Your task to perform on an android device: Look up the best rated video games on bestbuy.com Image 0: 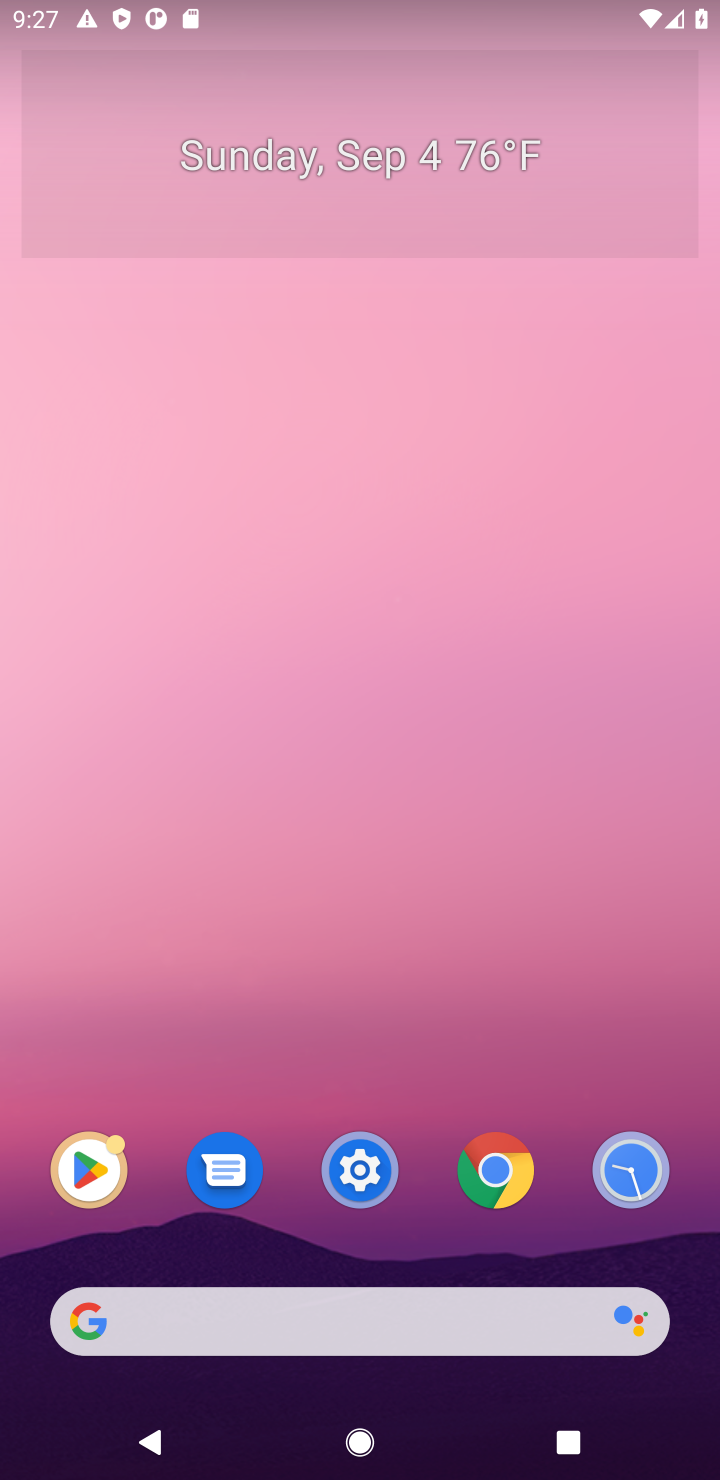
Step 0: click (482, 1327)
Your task to perform on an android device: Look up the best rated video games on bestbuy.com Image 1: 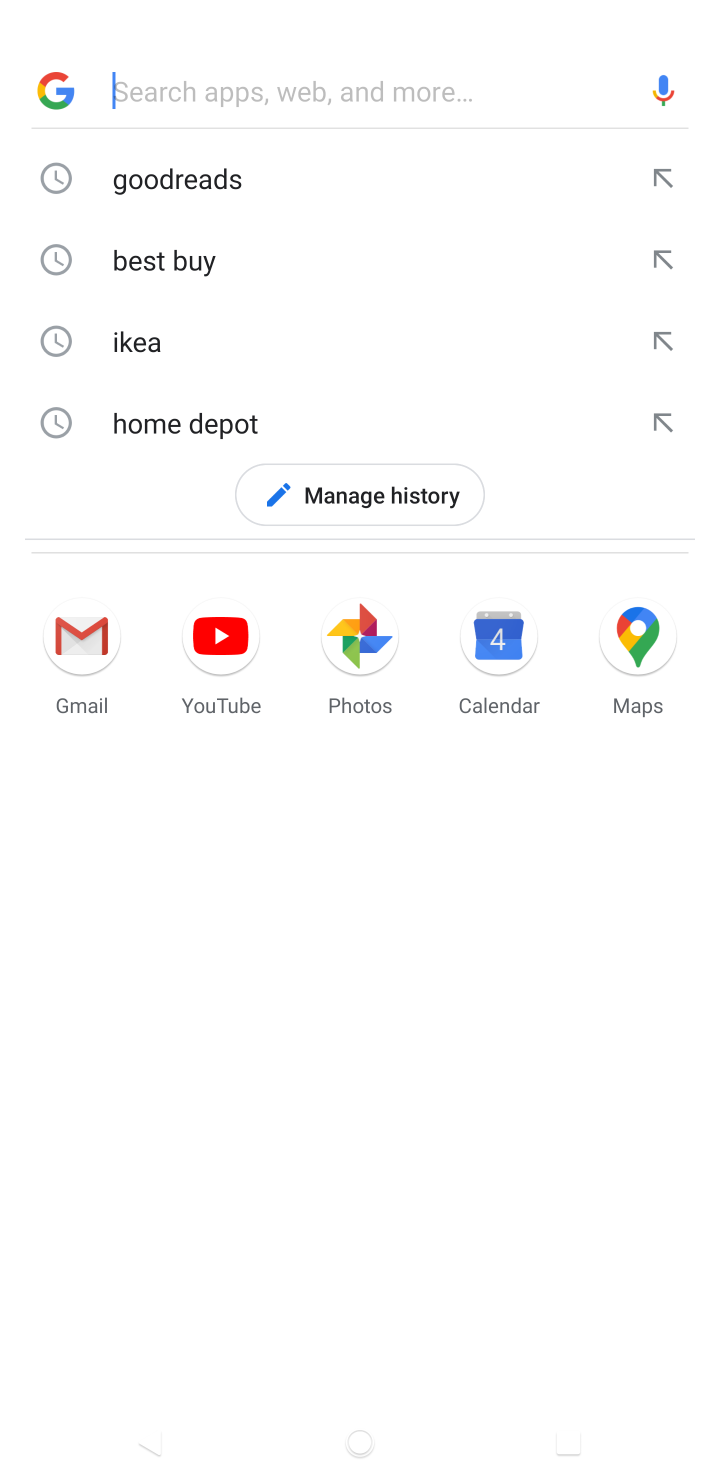
Step 1: click (357, 1314)
Your task to perform on an android device: Look up the best rated video games on bestbuy.com Image 2: 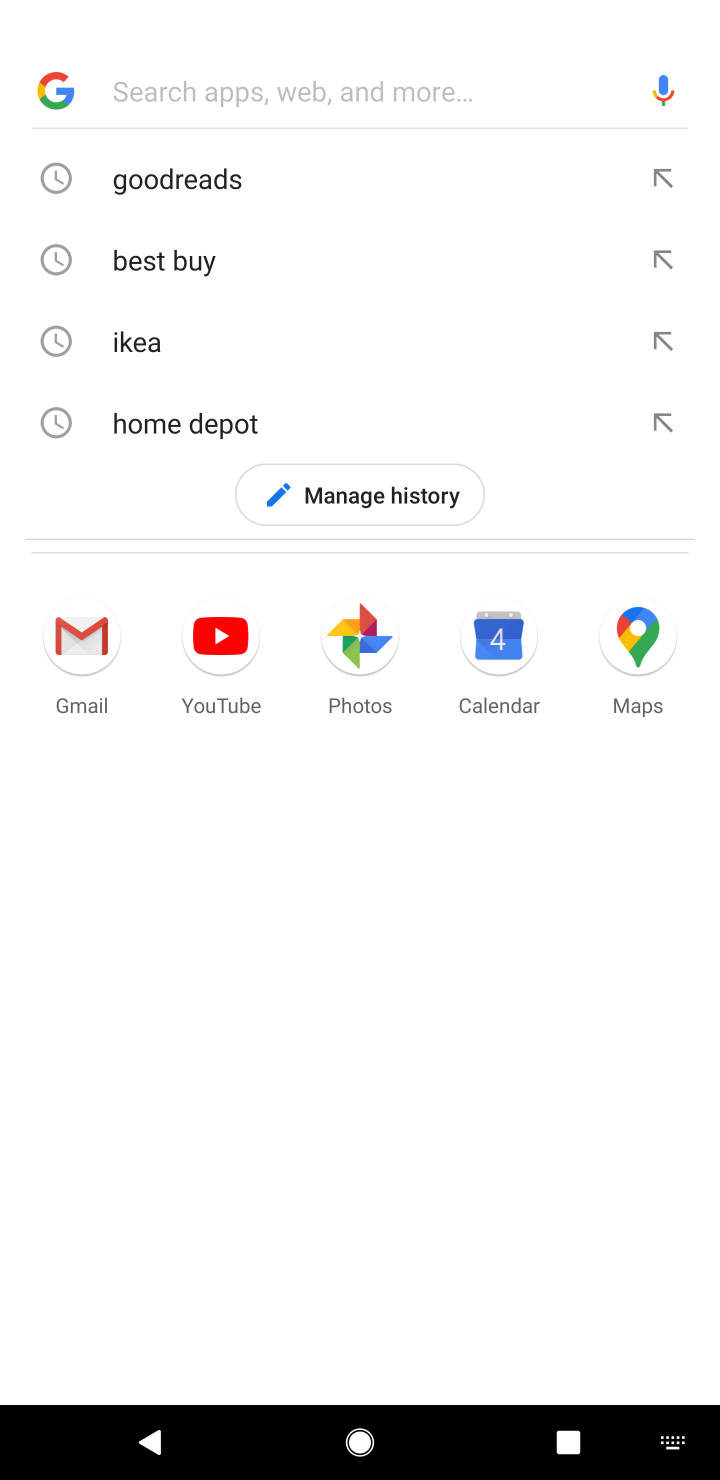
Step 2: type "bestbuy.com"
Your task to perform on an android device: Look up the best rated video games on bestbuy.com Image 3: 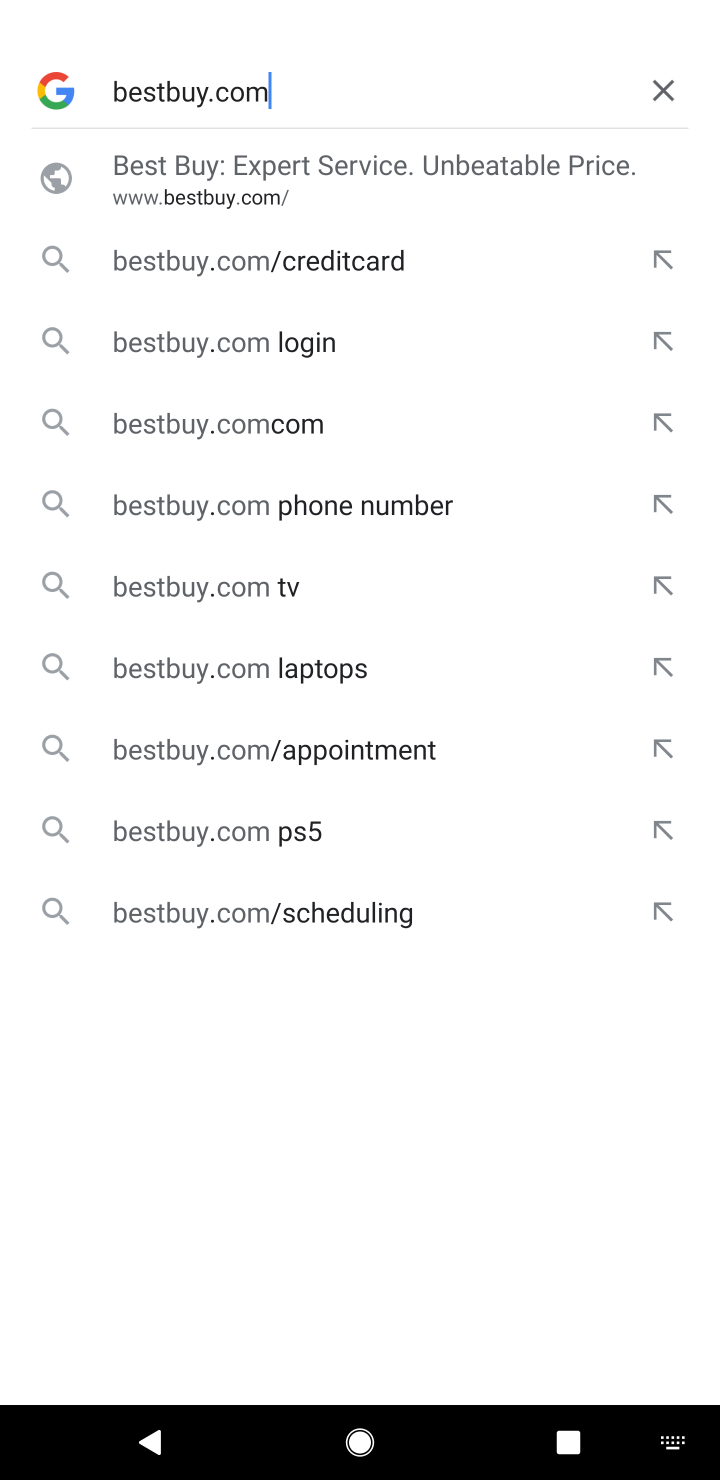
Step 3: click (262, 199)
Your task to perform on an android device: Look up the best rated video games on bestbuy.com Image 4: 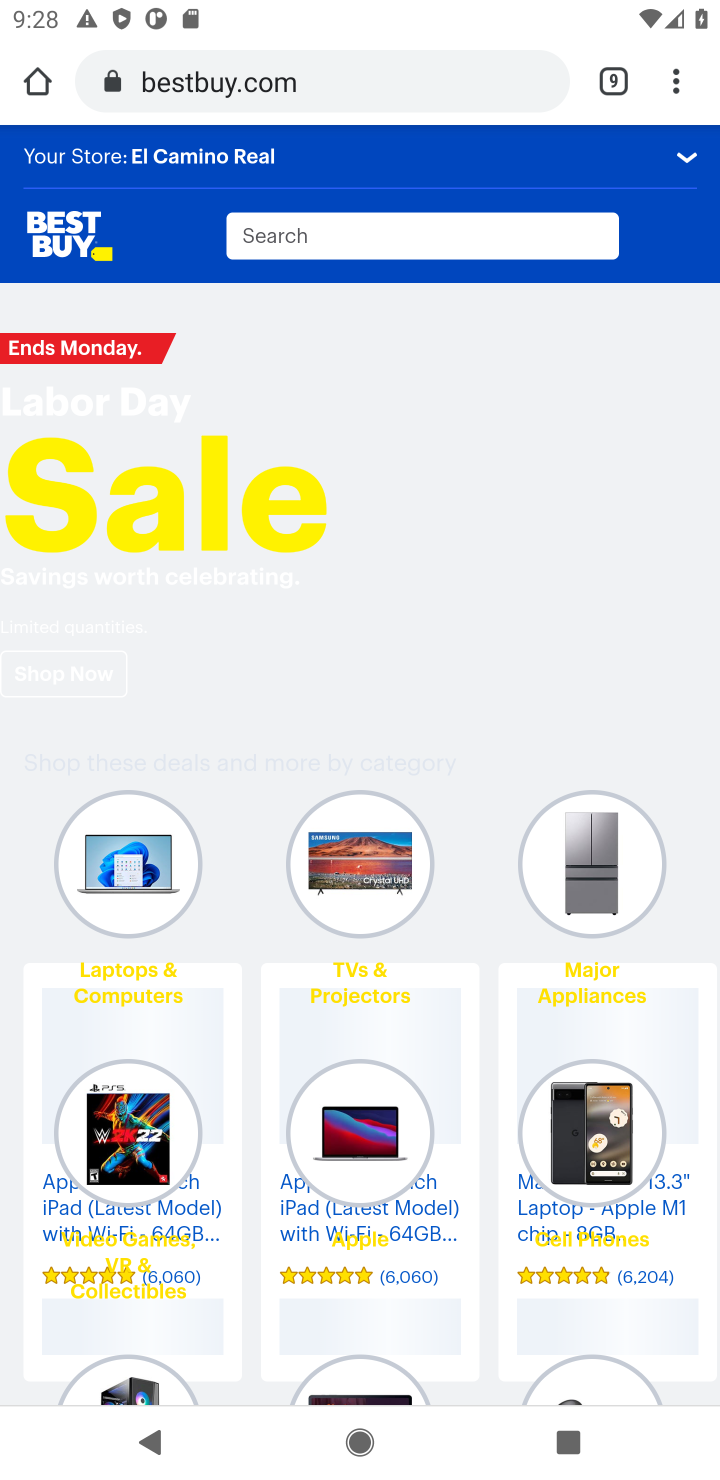
Step 4: click (344, 236)
Your task to perform on an android device: Look up the best rated video games on bestbuy.com Image 5: 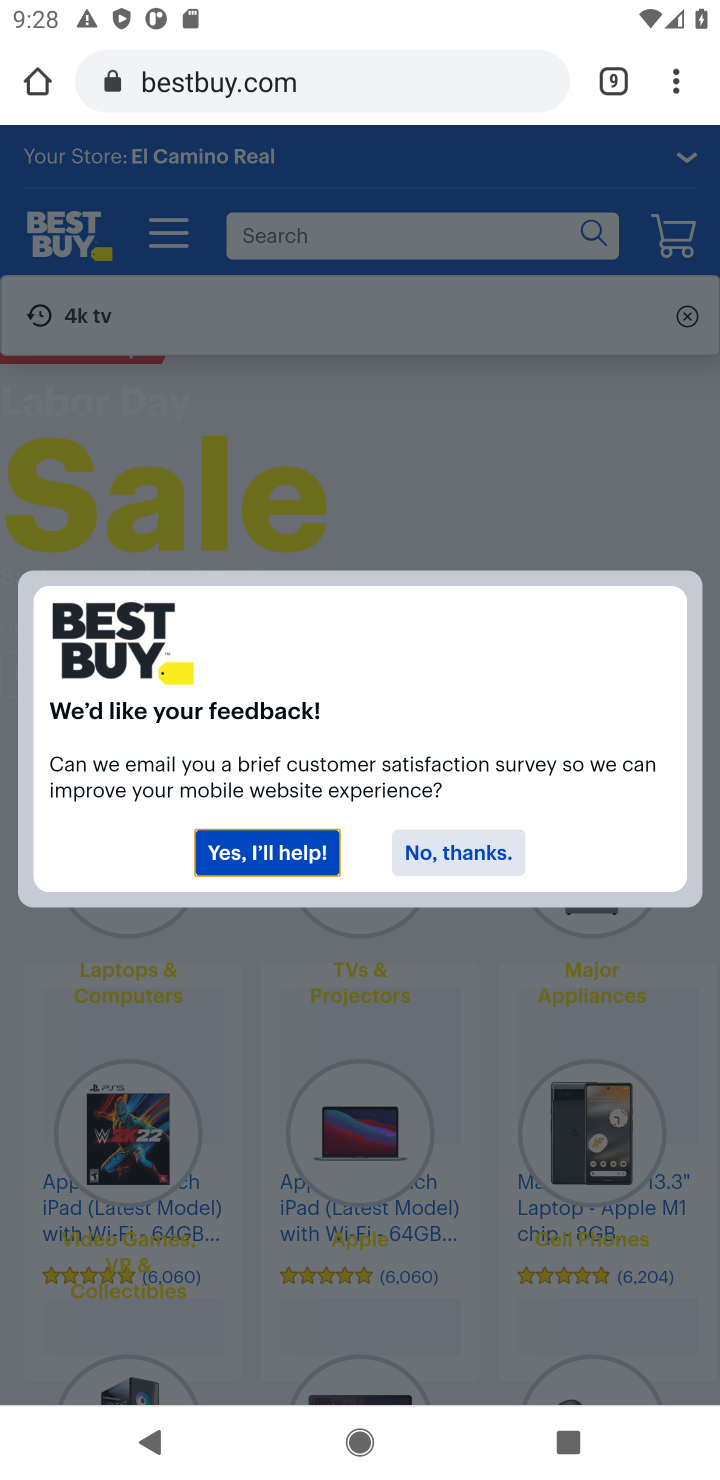
Step 5: click (336, 235)
Your task to perform on an android device: Look up the best rated video games on bestbuy.com Image 6: 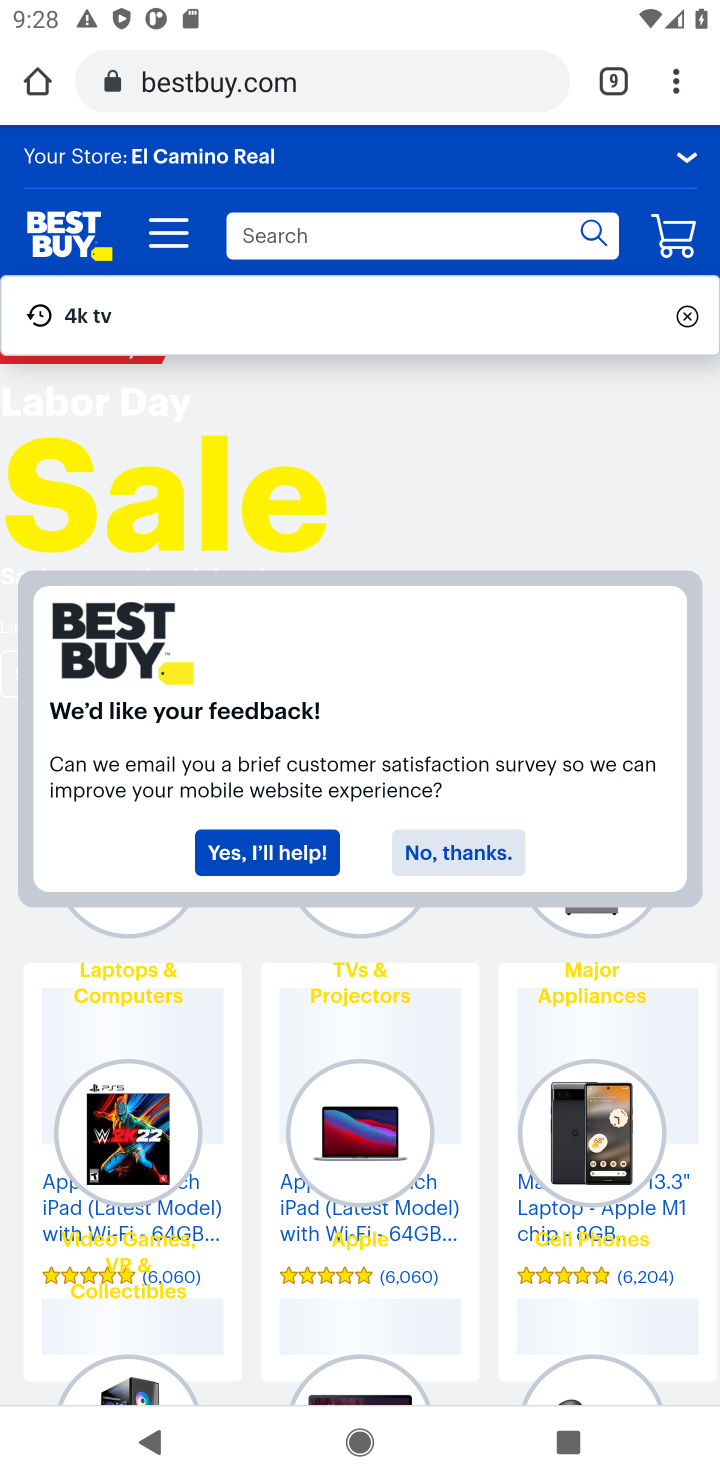
Step 6: click (348, 236)
Your task to perform on an android device: Look up the best rated video games on bestbuy.com Image 7: 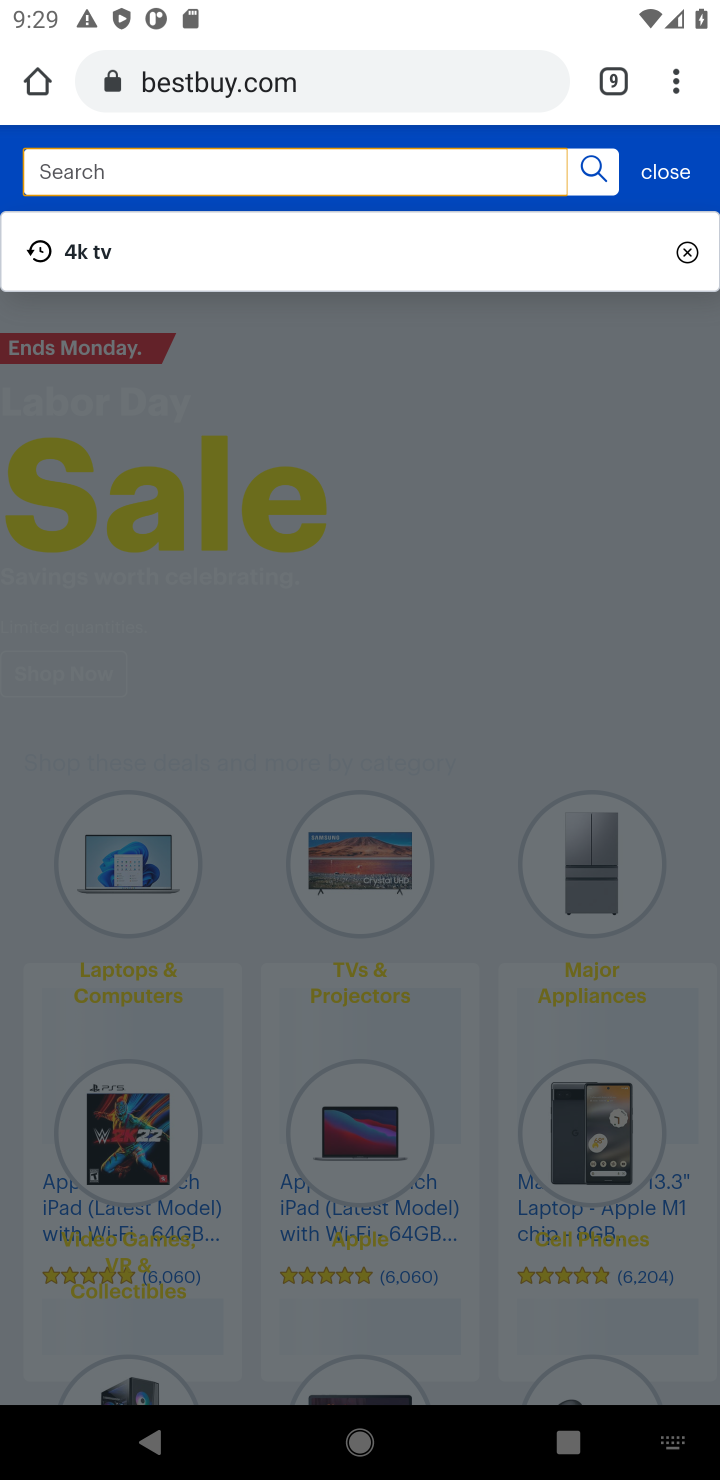
Step 7: type "video games"
Your task to perform on an android device: Look up the best rated video games on bestbuy.com Image 8: 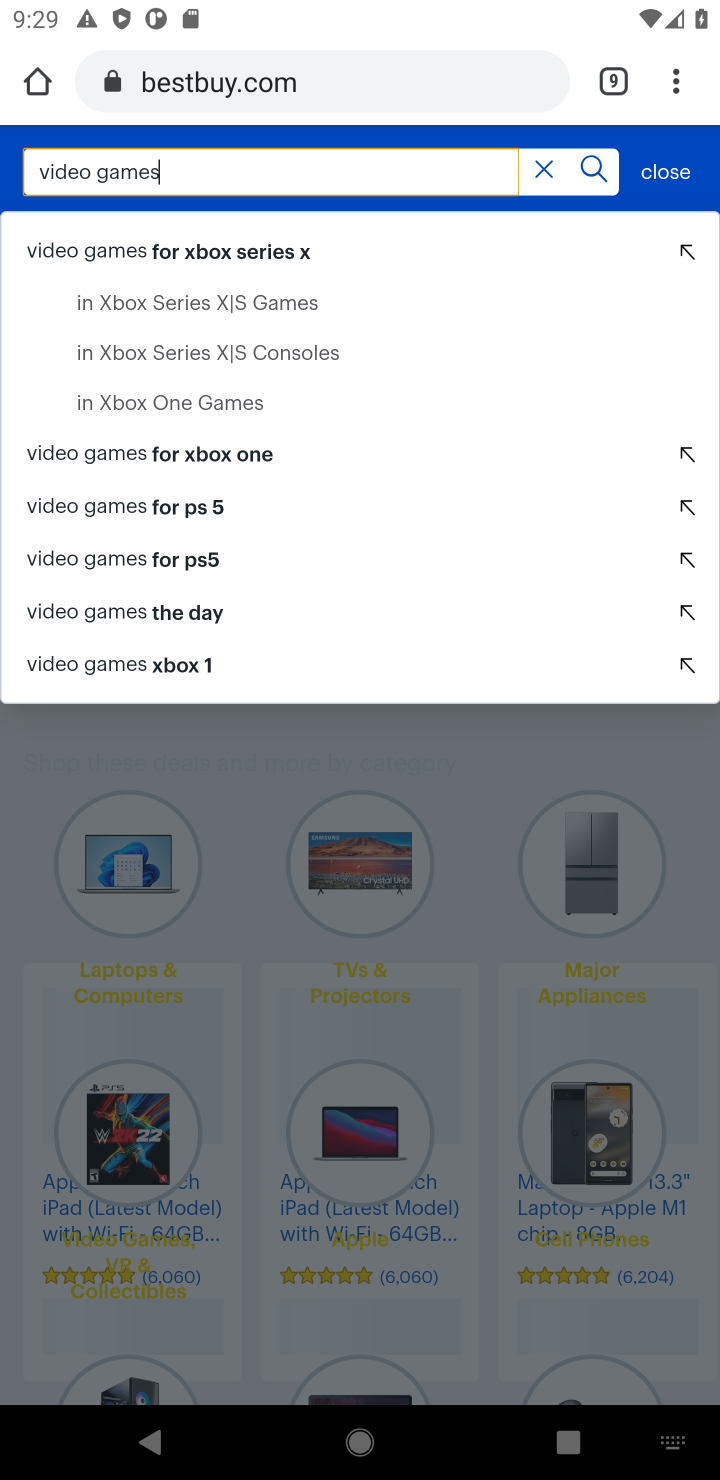
Step 8: click (320, 435)
Your task to perform on an android device: Look up the best rated video games on bestbuy.com Image 9: 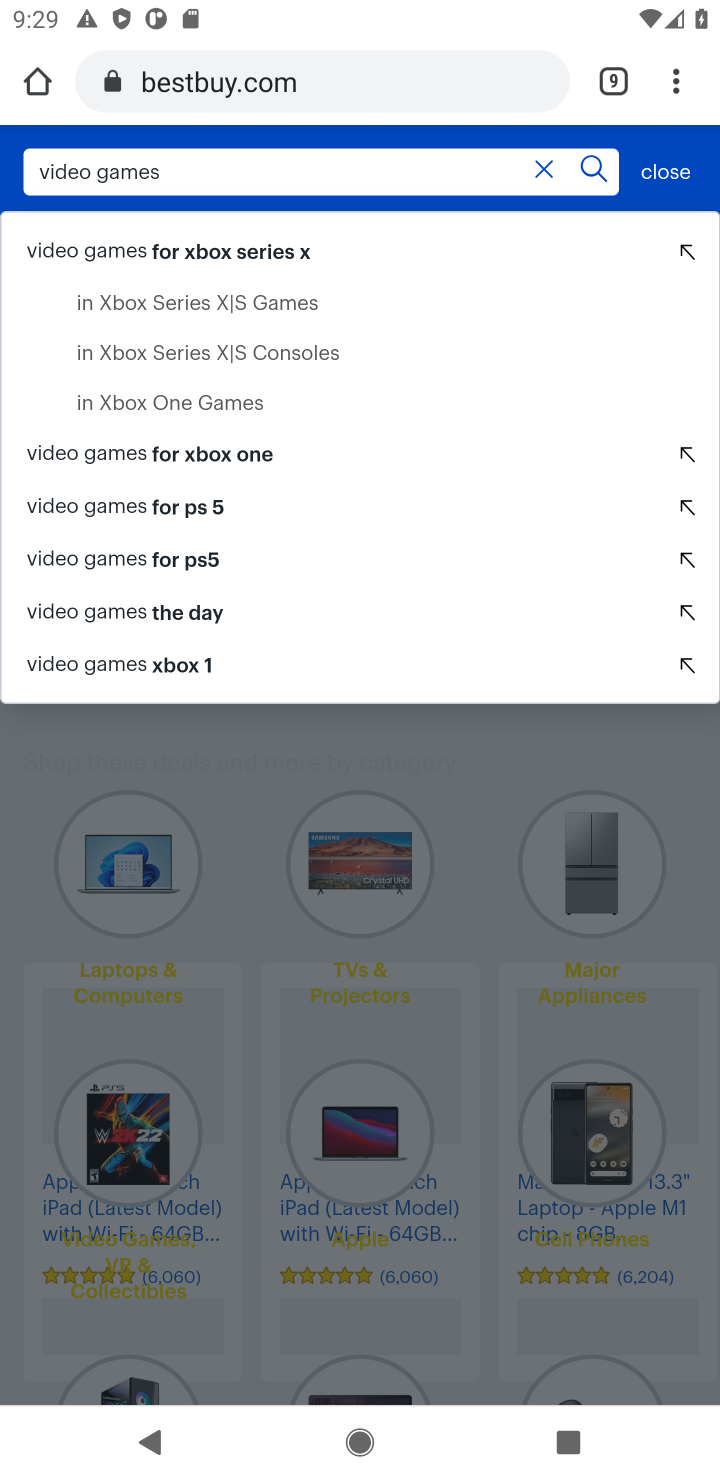
Step 9: click (313, 449)
Your task to perform on an android device: Look up the best rated video games on bestbuy.com Image 10: 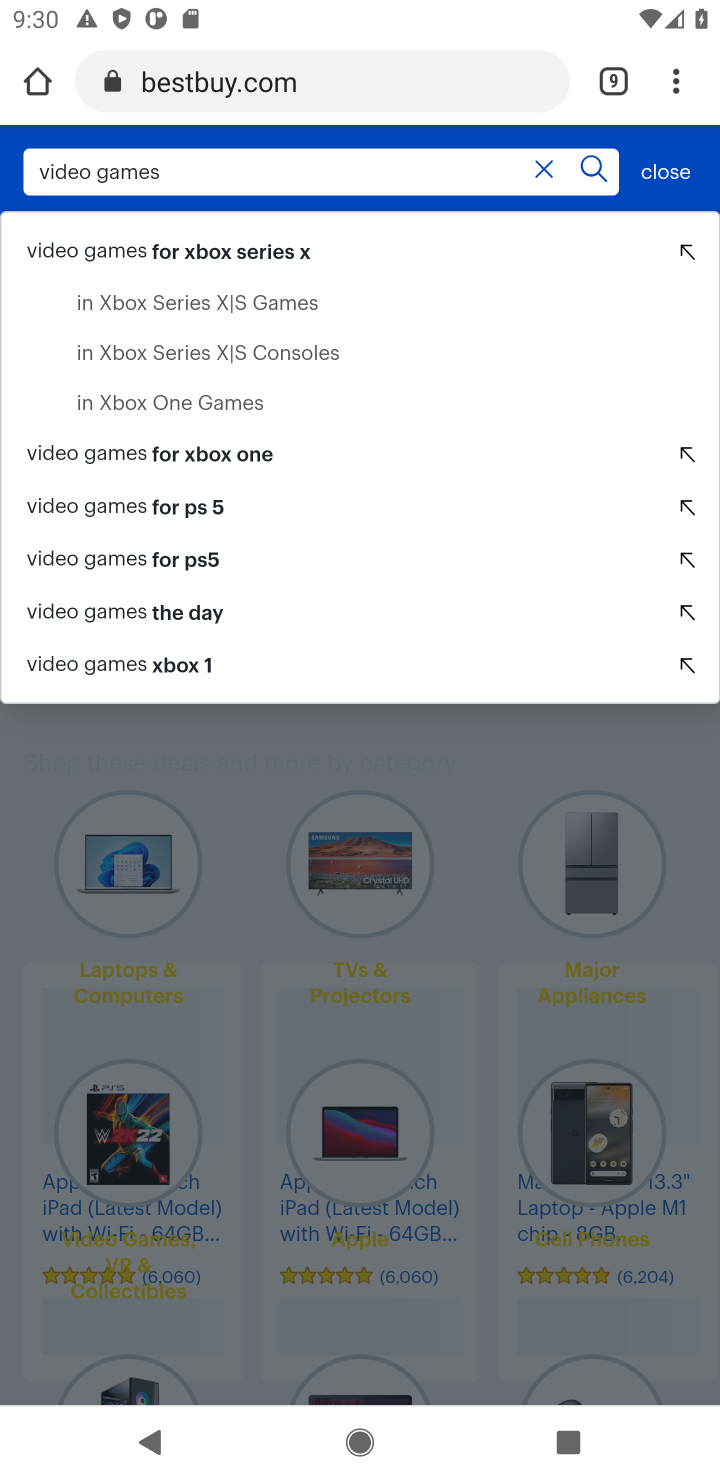
Step 10: click (149, 468)
Your task to perform on an android device: Look up the best rated video games on bestbuy.com Image 11: 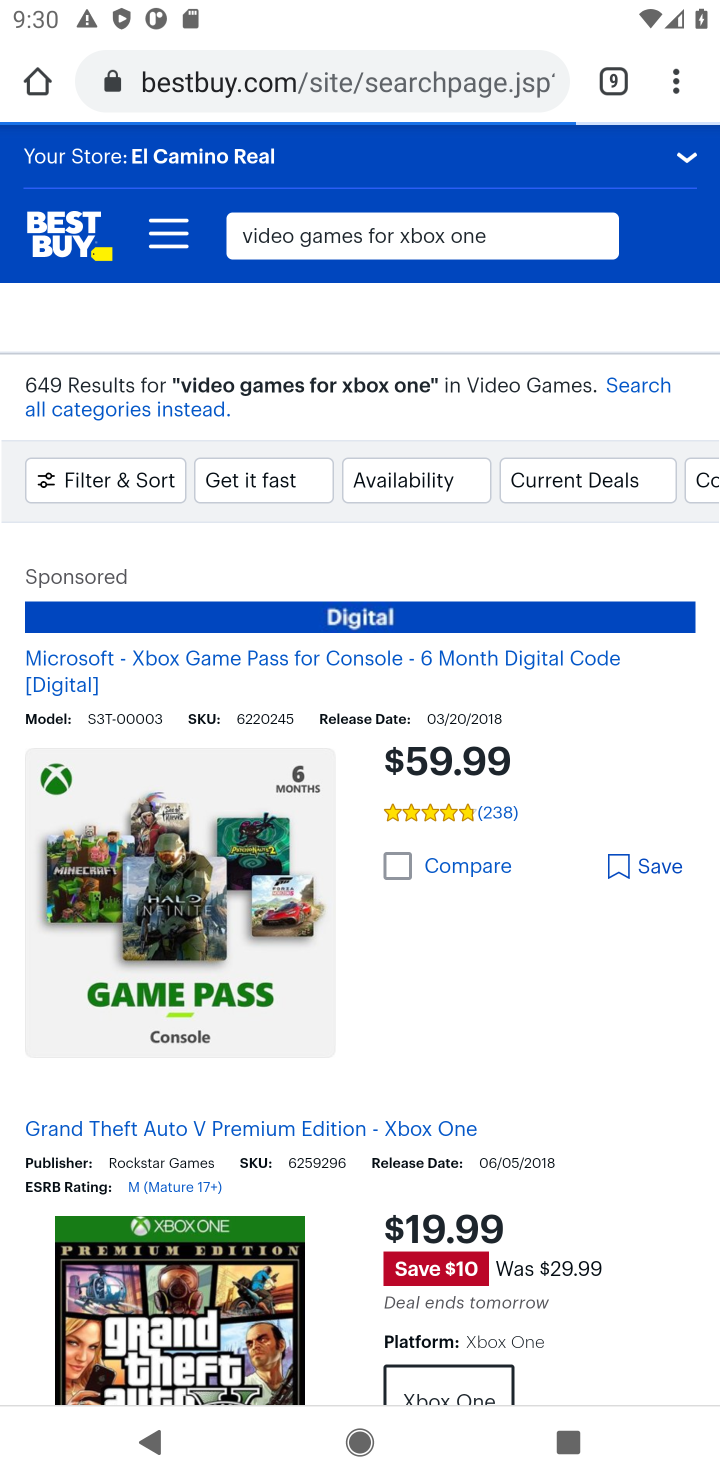
Step 11: click (717, 426)
Your task to perform on an android device: Look up the best rated video games on bestbuy.com Image 12: 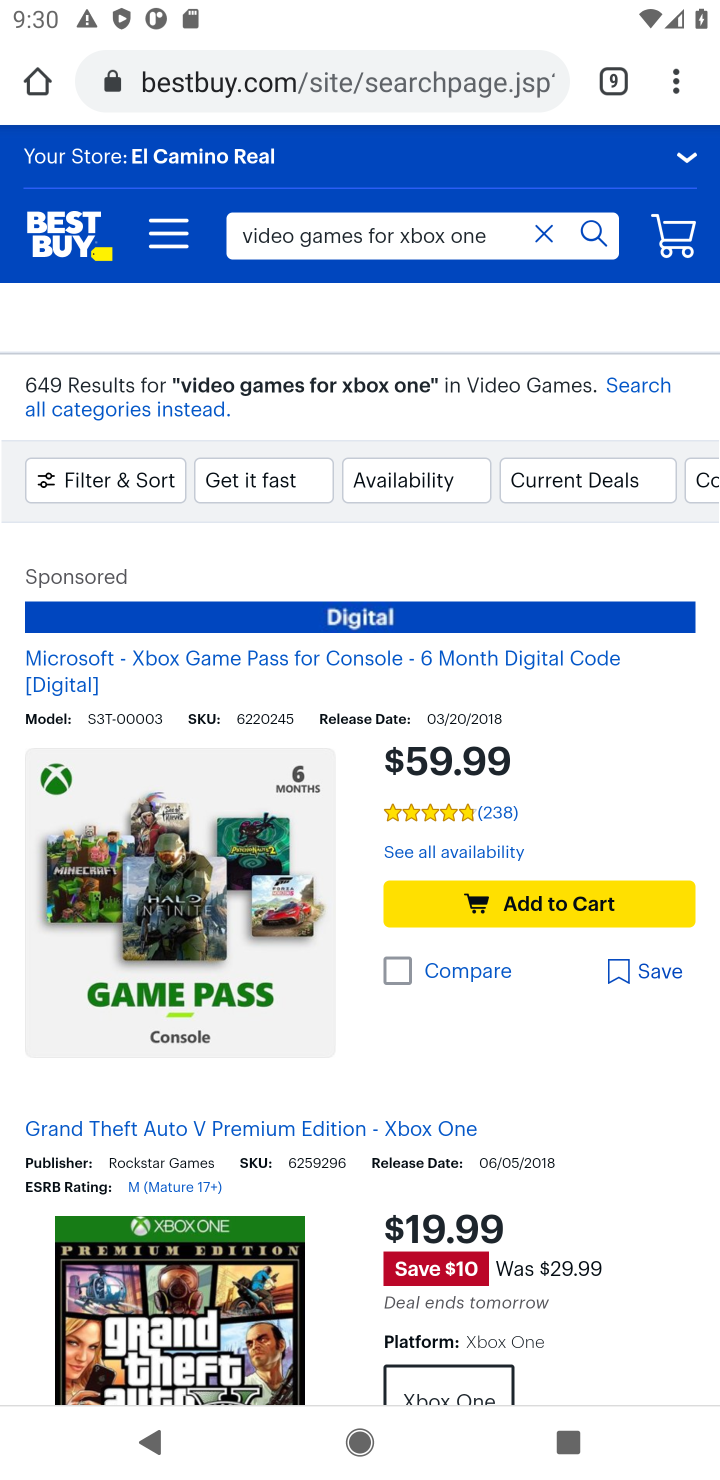
Step 12: task complete